Your task to perform on an android device: Open display settings Image 0: 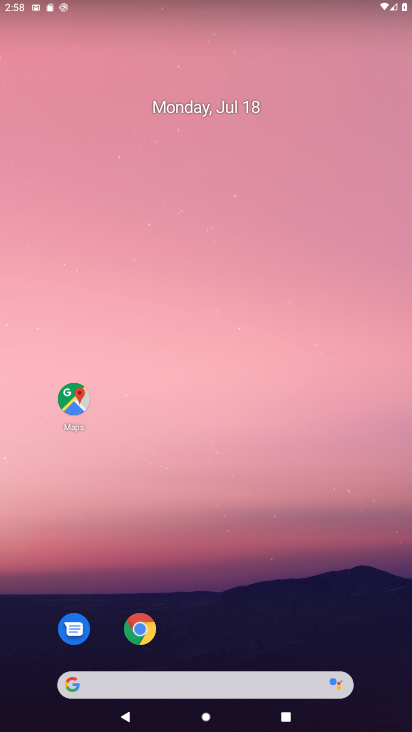
Step 0: drag from (365, 586) to (362, 105)
Your task to perform on an android device: Open display settings Image 1: 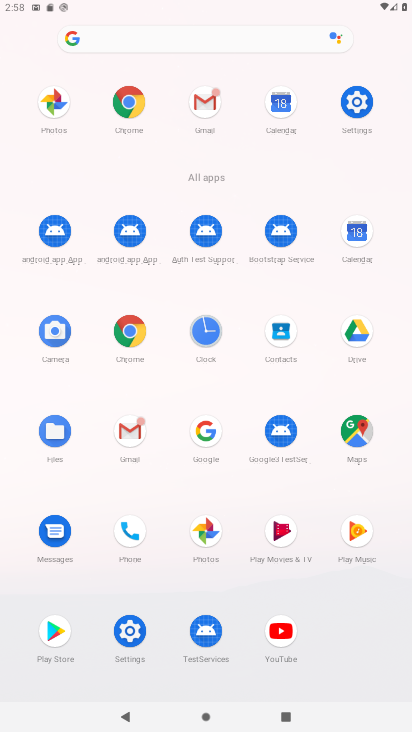
Step 1: click (360, 109)
Your task to perform on an android device: Open display settings Image 2: 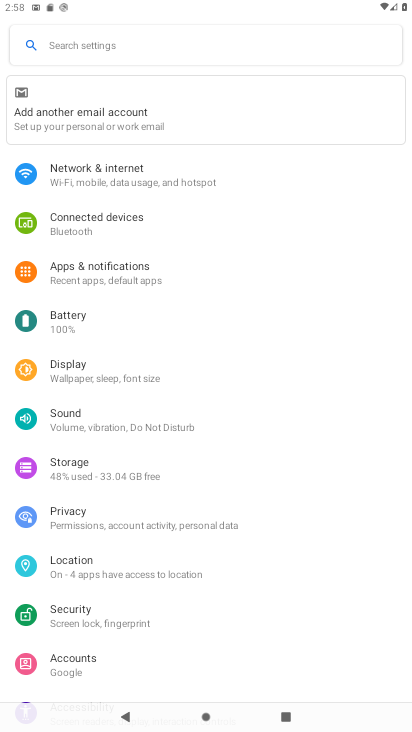
Step 2: drag from (329, 378) to (338, 300)
Your task to perform on an android device: Open display settings Image 3: 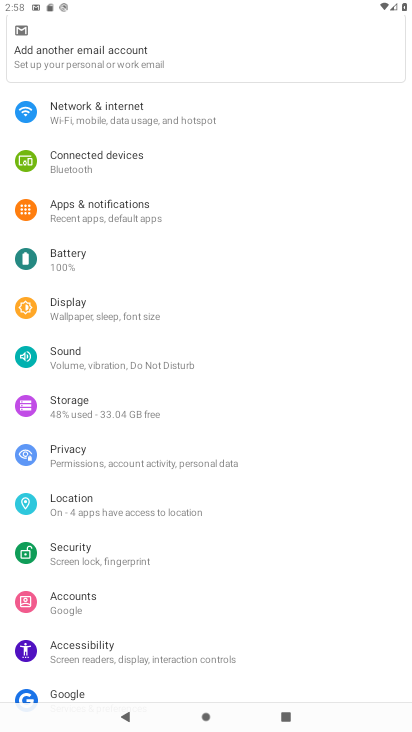
Step 3: drag from (322, 385) to (324, 307)
Your task to perform on an android device: Open display settings Image 4: 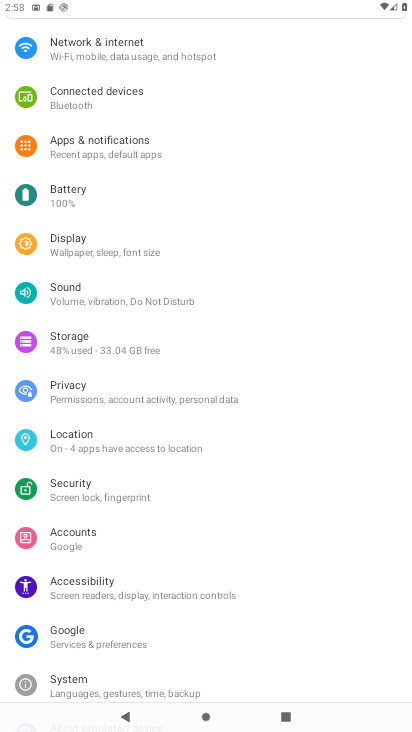
Step 4: drag from (324, 424) to (331, 328)
Your task to perform on an android device: Open display settings Image 5: 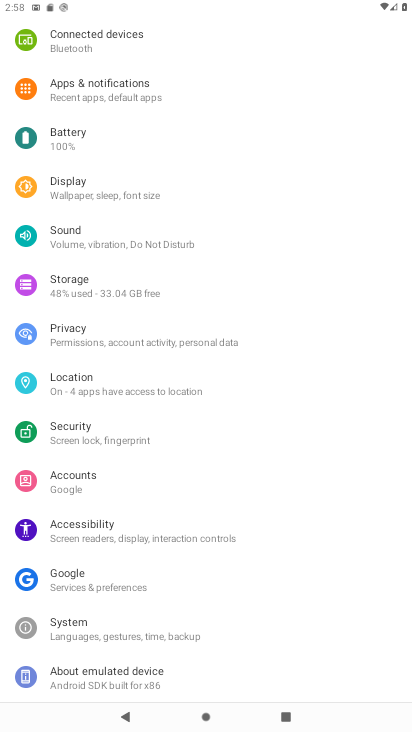
Step 5: drag from (328, 442) to (340, 342)
Your task to perform on an android device: Open display settings Image 6: 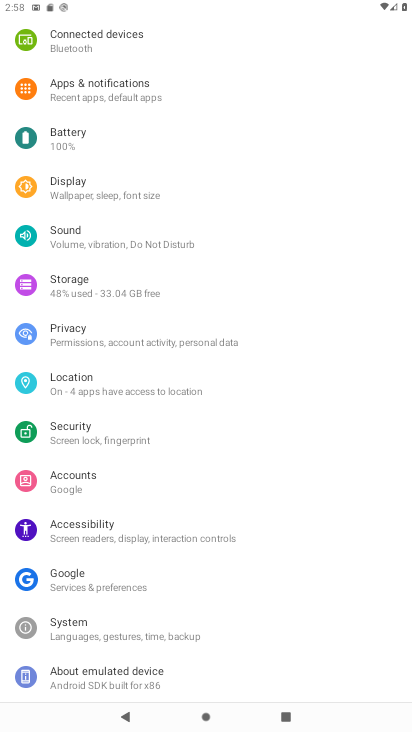
Step 6: drag from (342, 272) to (332, 342)
Your task to perform on an android device: Open display settings Image 7: 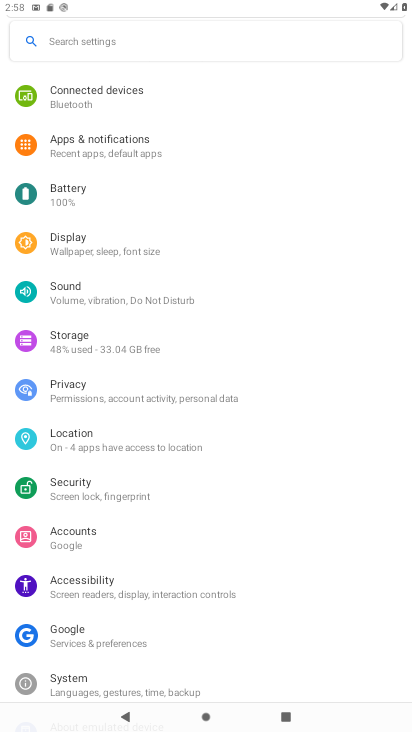
Step 7: drag from (332, 215) to (332, 348)
Your task to perform on an android device: Open display settings Image 8: 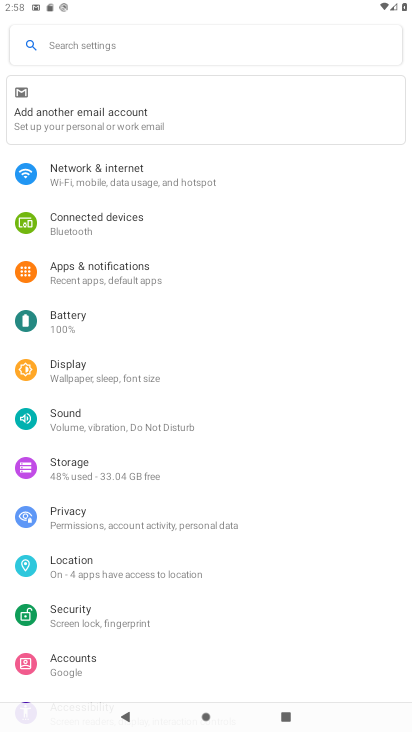
Step 8: drag from (310, 199) to (307, 362)
Your task to perform on an android device: Open display settings Image 9: 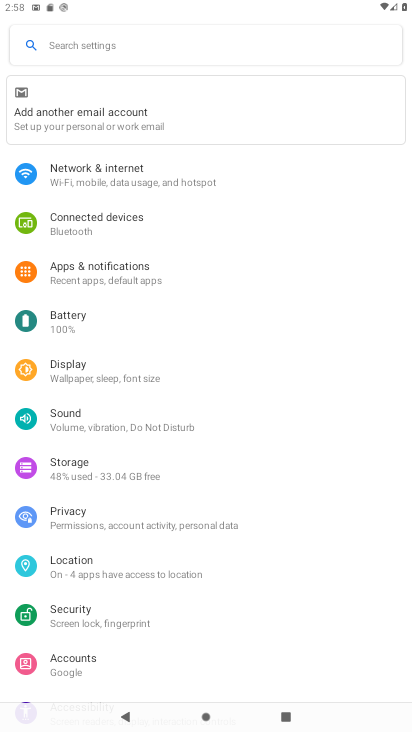
Step 9: click (152, 385)
Your task to perform on an android device: Open display settings Image 10: 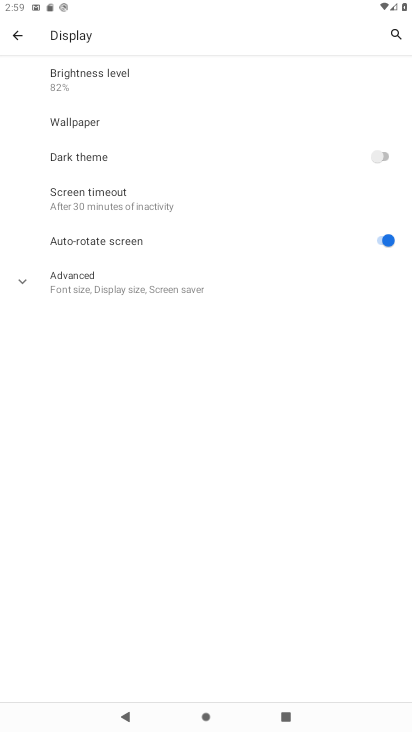
Step 10: click (191, 301)
Your task to perform on an android device: Open display settings Image 11: 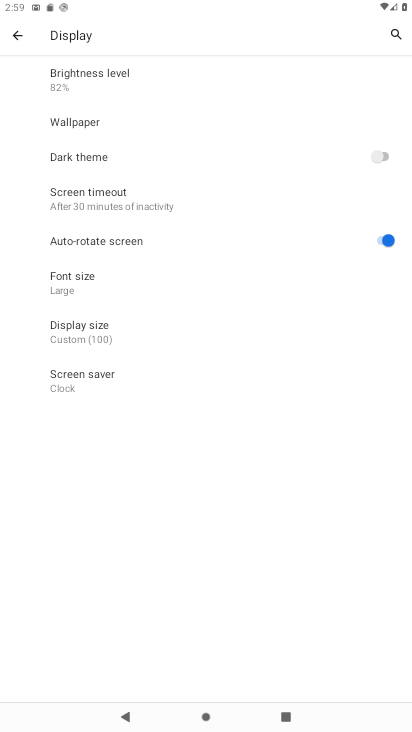
Step 11: task complete